Your task to perform on an android device: check google app version Image 0: 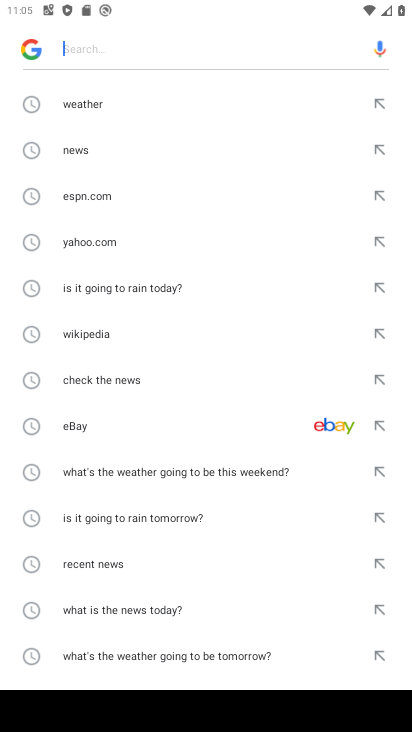
Step 0: press home button
Your task to perform on an android device: check google app version Image 1: 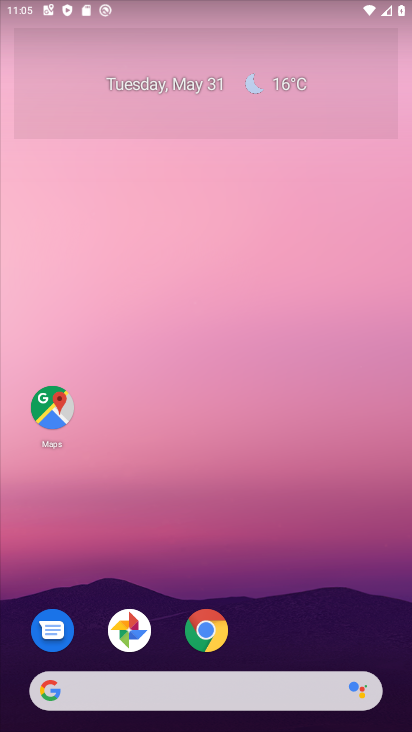
Step 1: drag from (304, 643) to (261, 293)
Your task to perform on an android device: check google app version Image 2: 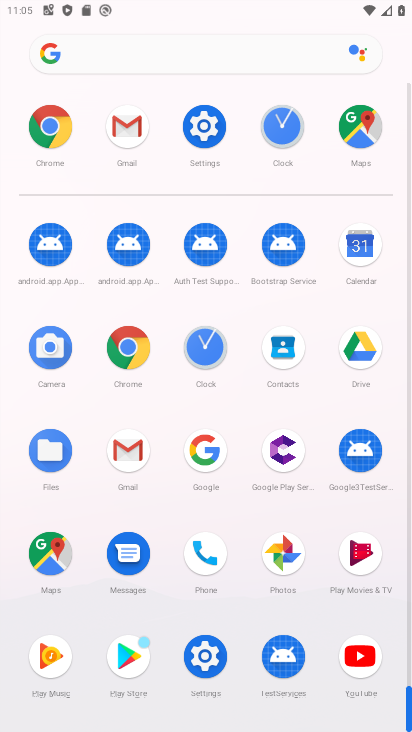
Step 2: click (198, 448)
Your task to perform on an android device: check google app version Image 3: 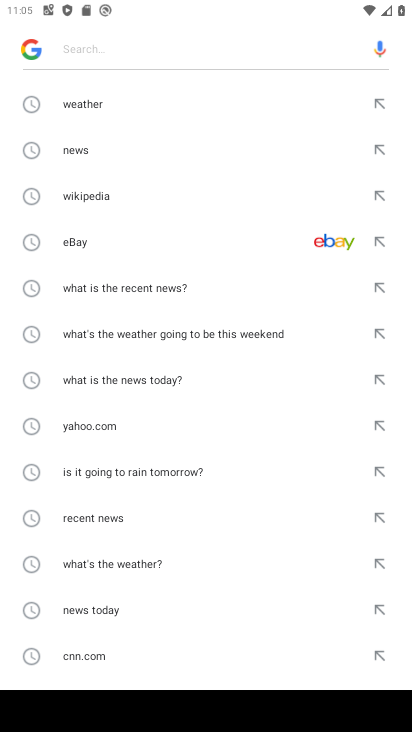
Step 3: click (29, 37)
Your task to perform on an android device: check google app version Image 4: 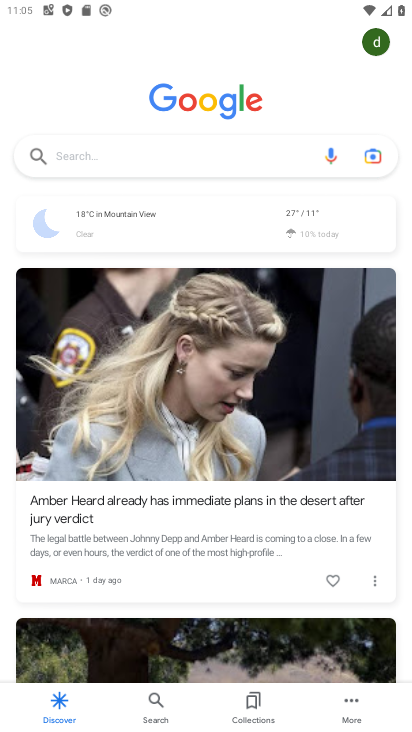
Step 4: click (356, 701)
Your task to perform on an android device: check google app version Image 5: 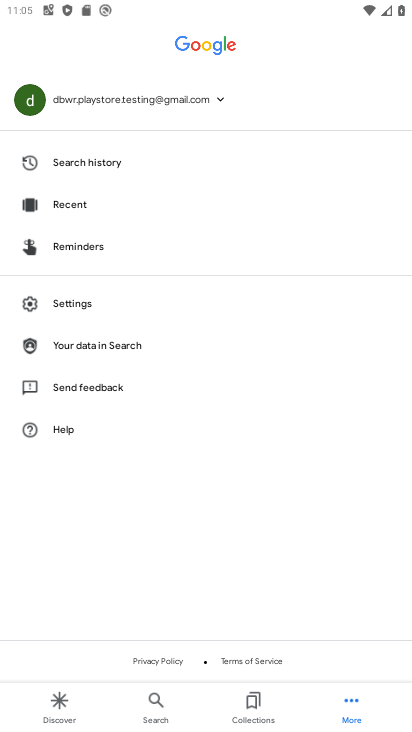
Step 5: click (91, 293)
Your task to perform on an android device: check google app version Image 6: 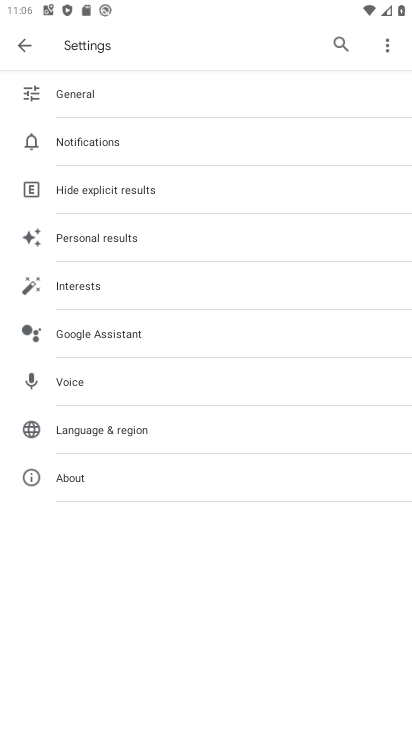
Step 6: click (148, 468)
Your task to perform on an android device: check google app version Image 7: 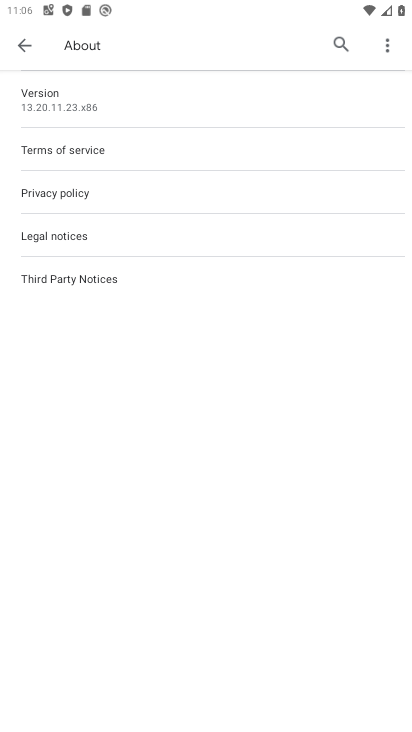
Step 7: task complete